Your task to perform on an android device: What's the weather? Image 0: 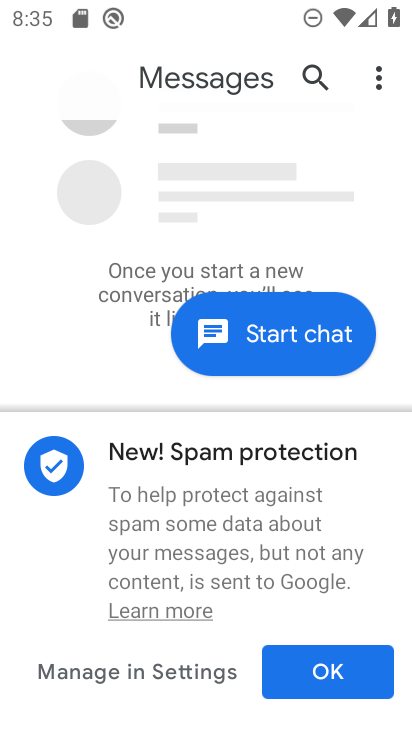
Step 0: press home button
Your task to perform on an android device: What's the weather? Image 1: 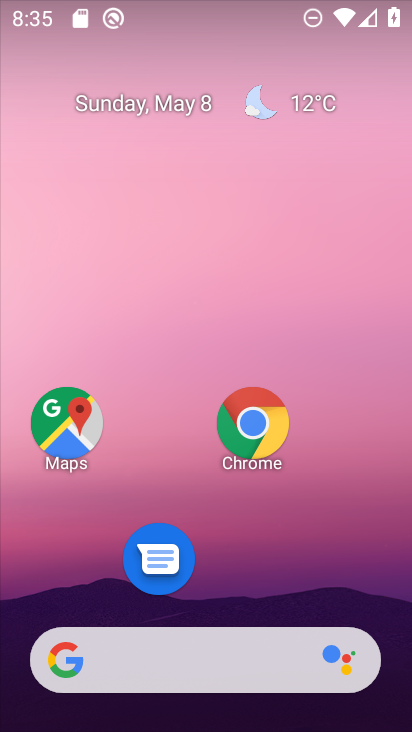
Step 1: click (312, 100)
Your task to perform on an android device: What's the weather? Image 2: 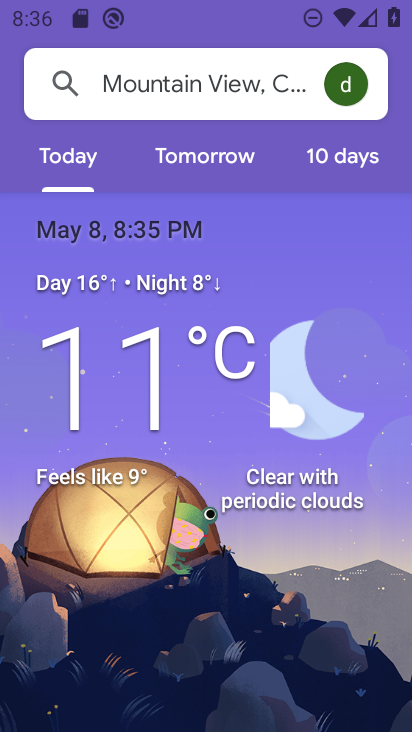
Step 2: task complete